Your task to perform on an android device: Open Wikipedia Image 0: 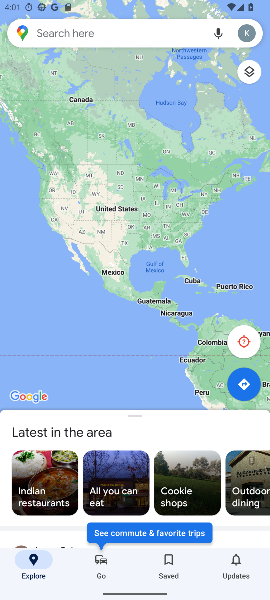
Step 0: press home button
Your task to perform on an android device: Open Wikipedia Image 1: 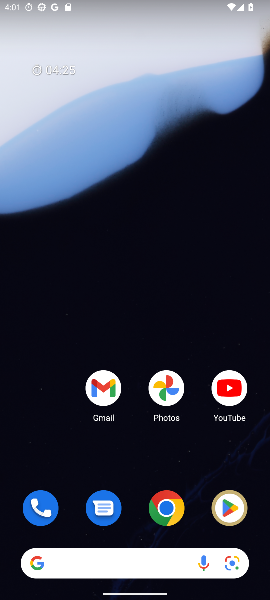
Step 1: drag from (141, 533) to (170, 238)
Your task to perform on an android device: Open Wikipedia Image 2: 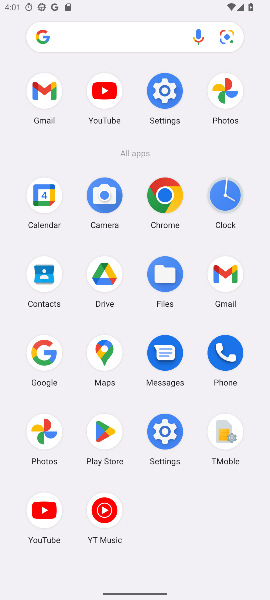
Step 2: click (103, 40)
Your task to perform on an android device: Open Wikipedia Image 3: 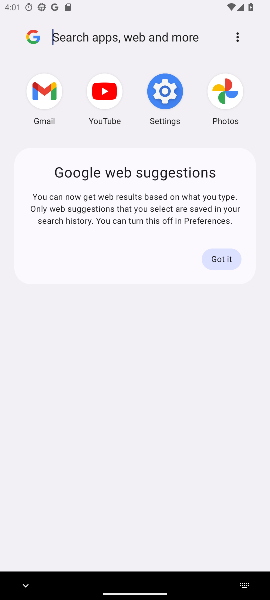
Step 3: type "Wikipedia"
Your task to perform on an android device: Open Wikipedia Image 4: 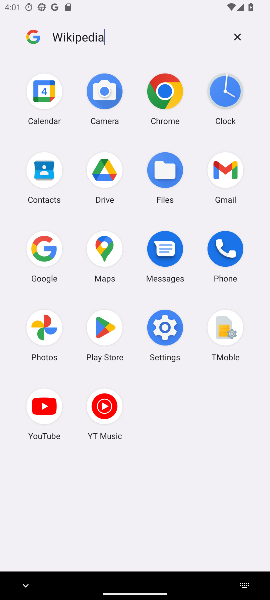
Step 4: type ""
Your task to perform on an android device: Open Wikipedia Image 5: 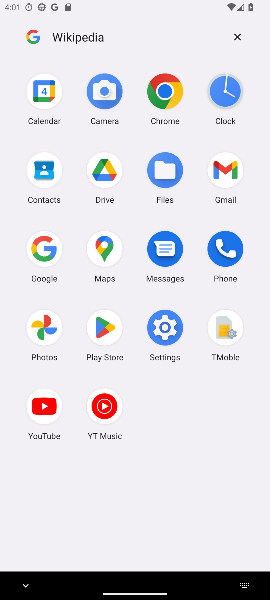
Step 5: click (164, 96)
Your task to perform on an android device: Open Wikipedia Image 6: 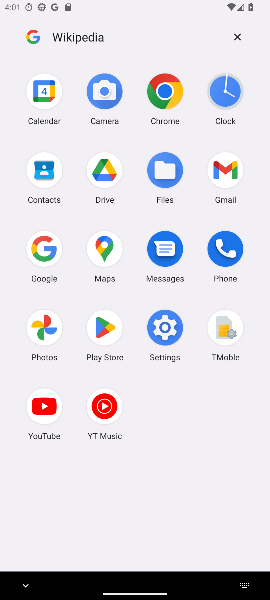
Step 6: click (165, 98)
Your task to perform on an android device: Open Wikipedia Image 7: 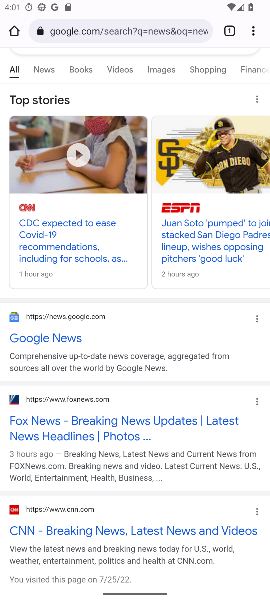
Step 7: click (143, 30)
Your task to perform on an android device: Open Wikipedia Image 8: 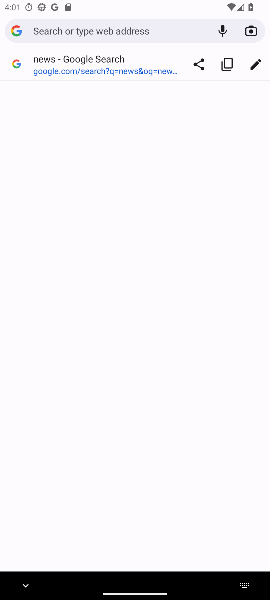
Step 8: type "Wikipedia"
Your task to perform on an android device: Open Wikipedia Image 9: 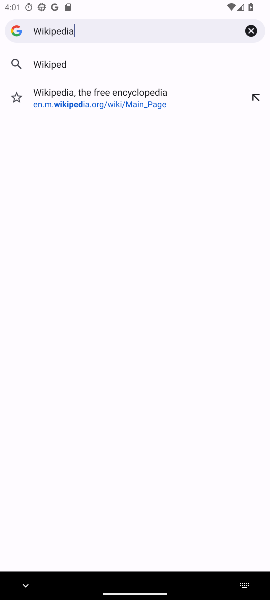
Step 9: type ""
Your task to perform on an android device: Open Wikipedia Image 10: 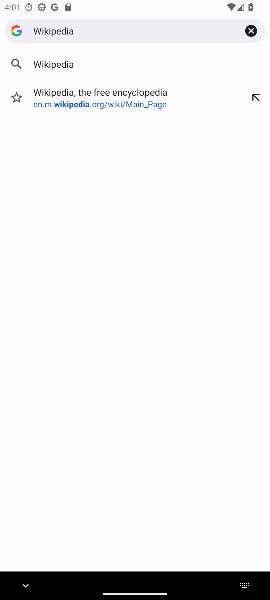
Step 10: click (52, 61)
Your task to perform on an android device: Open Wikipedia Image 11: 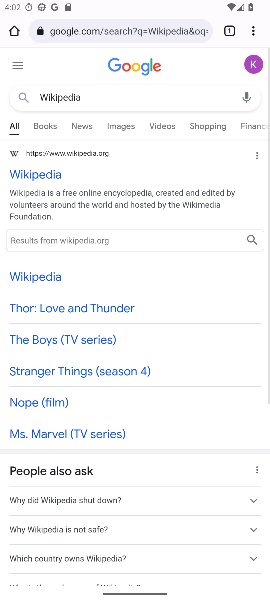
Step 11: click (44, 178)
Your task to perform on an android device: Open Wikipedia Image 12: 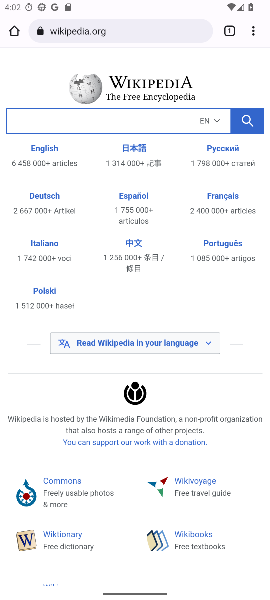
Step 12: task complete